Your task to perform on an android device: Empty the shopping cart on amazon.com. Image 0: 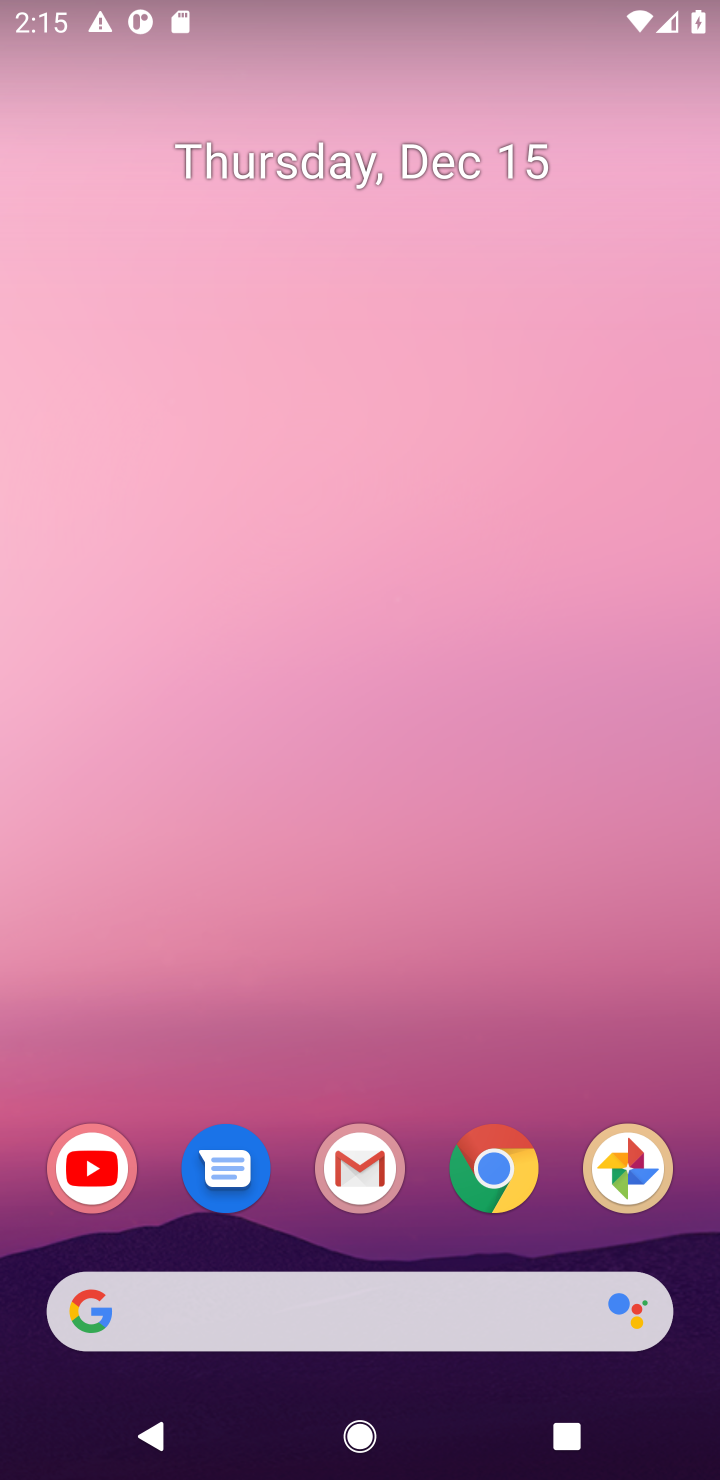
Step 0: click (510, 1192)
Your task to perform on an android device: Empty the shopping cart on amazon.com. Image 1: 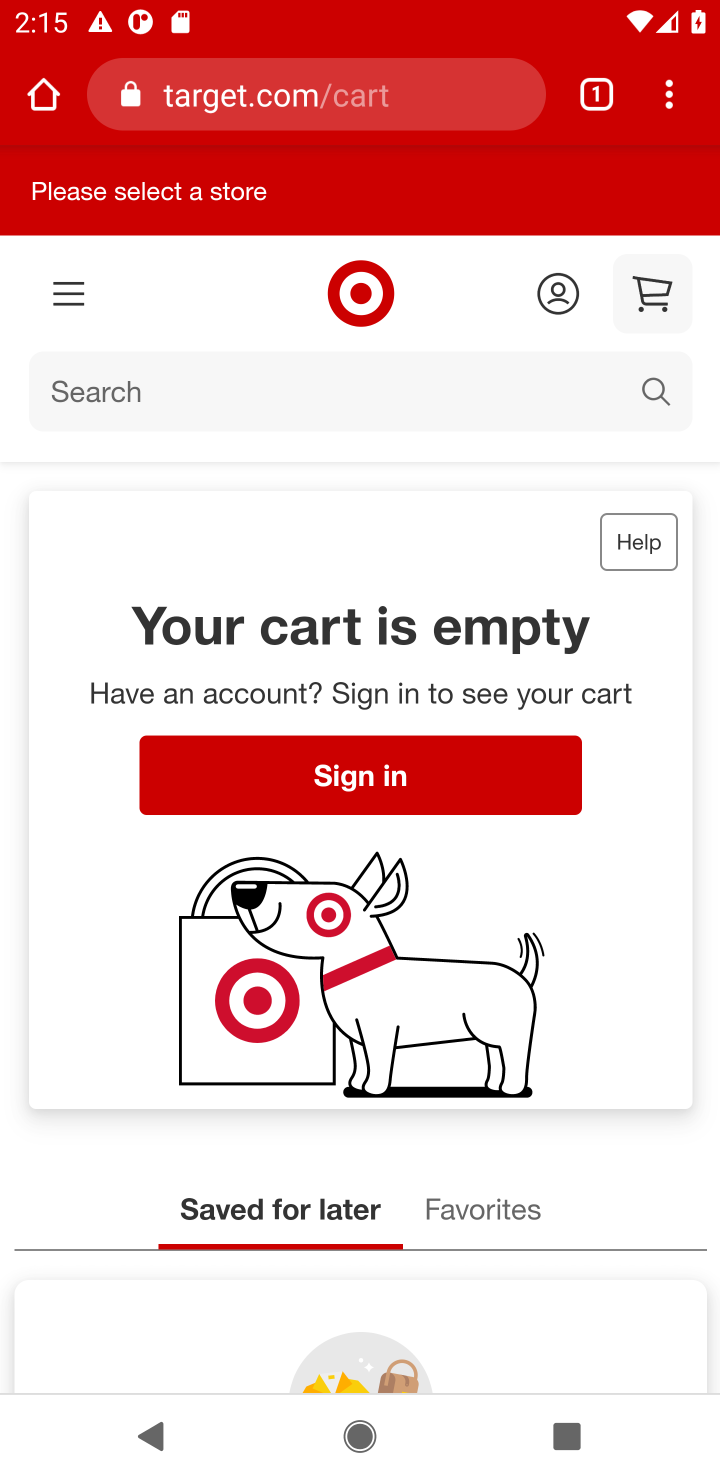
Step 1: click (325, 82)
Your task to perform on an android device: Empty the shopping cart on amazon.com. Image 2: 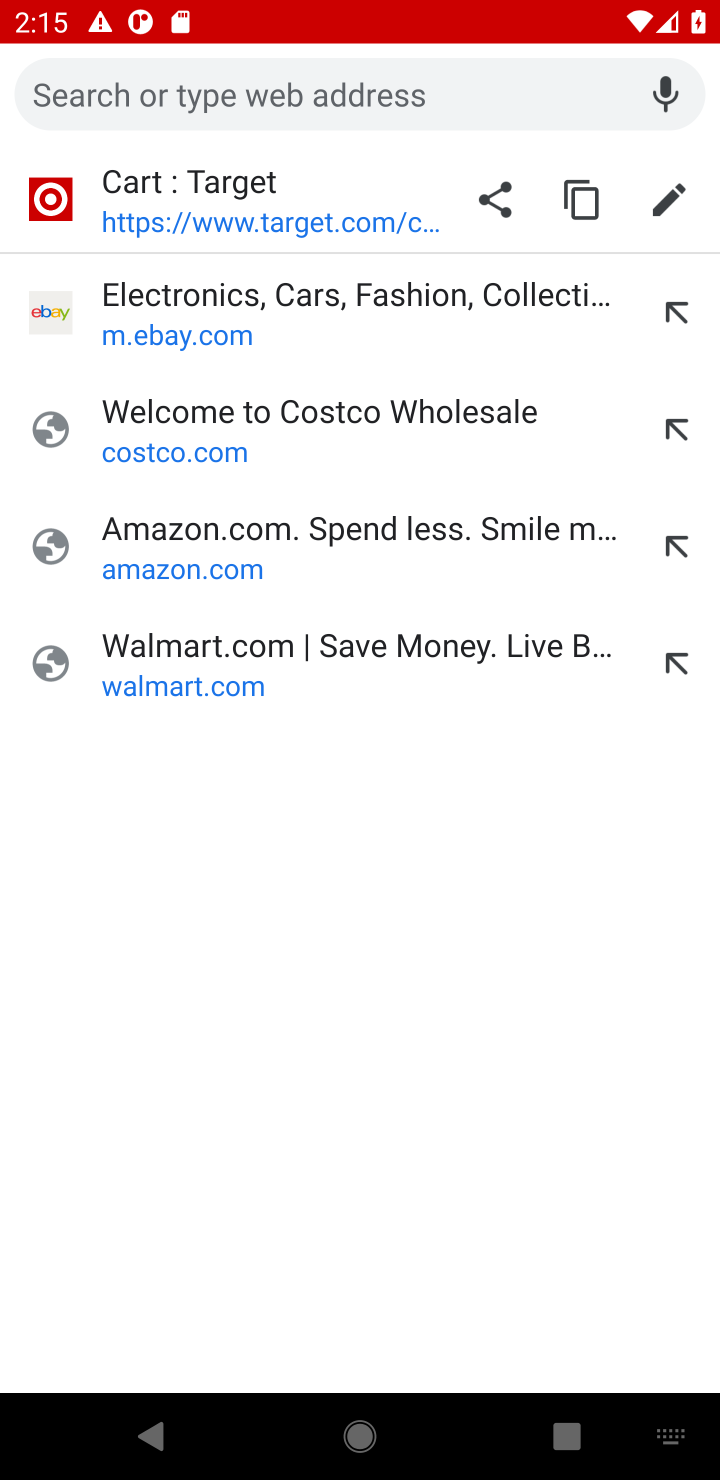
Step 2: click (206, 526)
Your task to perform on an android device: Empty the shopping cart on amazon.com. Image 3: 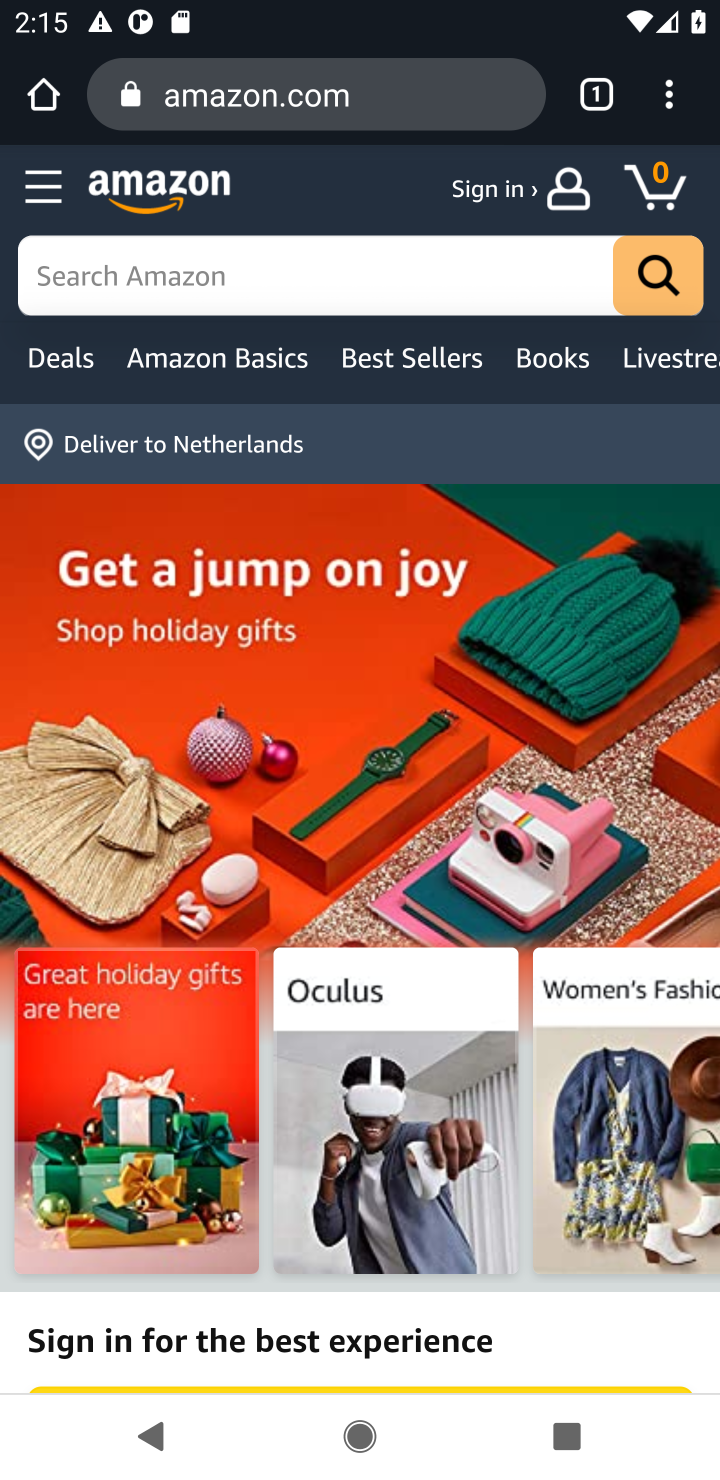
Step 3: click (657, 192)
Your task to perform on an android device: Empty the shopping cart on amazon.com. Image 4: 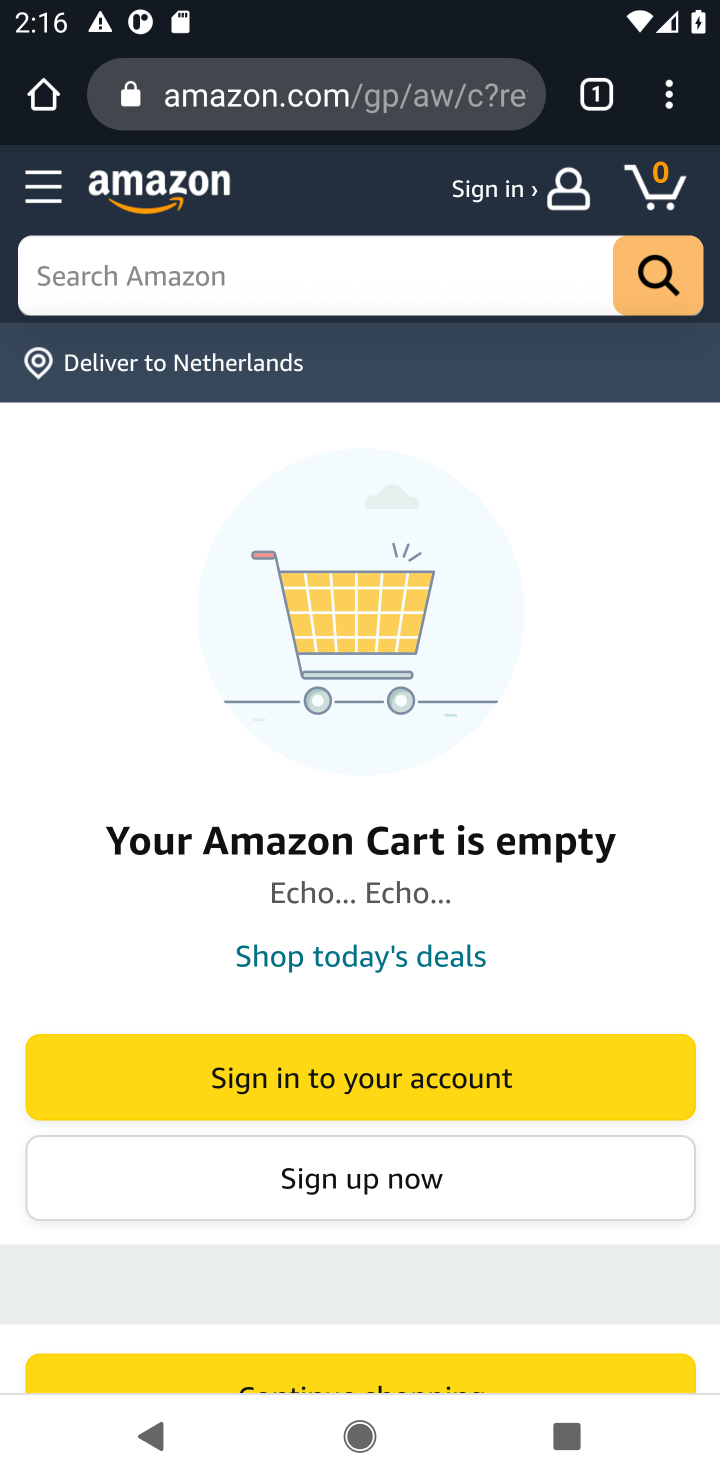
Step 4: task complete